Your task to perform on an android device: Is it going to rain this weekend? Image 0: 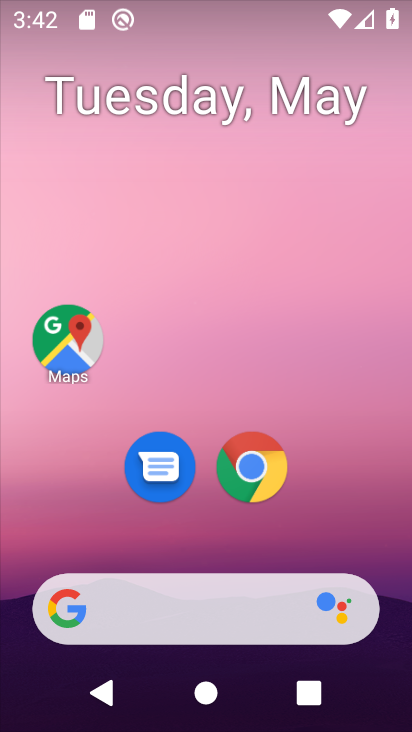
Step 0: drag from (284, 557) to (284, 151)
Your task to perform on an android device: Is it going to rain this weekend? Image 1: 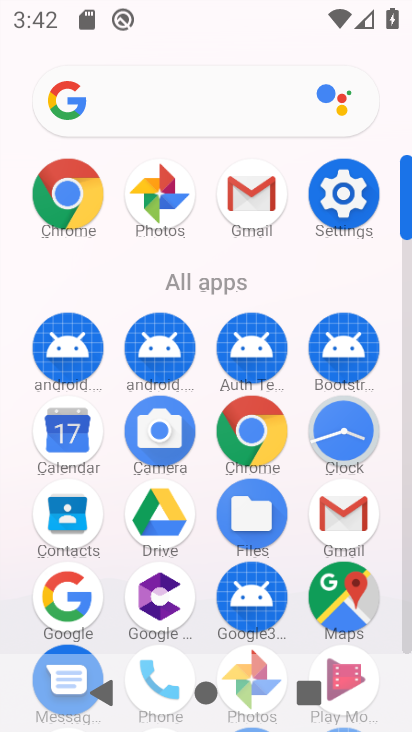
Step 1: click (58, 618)
Your task to perform on an android device: Is it going to rain this weekend? Image 2: 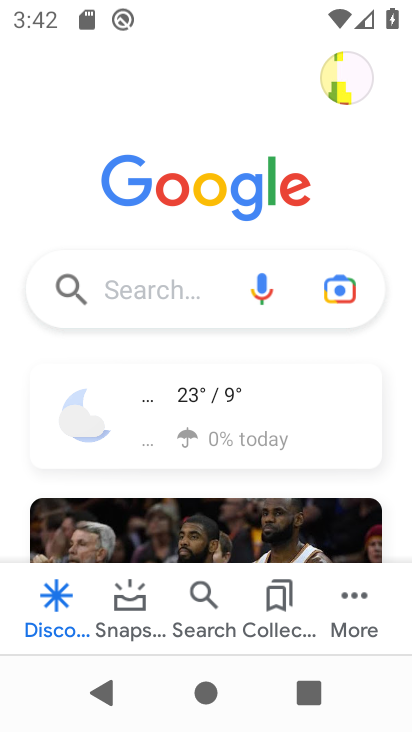
Step 2: click (168, 283)
Your task to perform on an android device: Is it going to rain this weekend? Image 3: 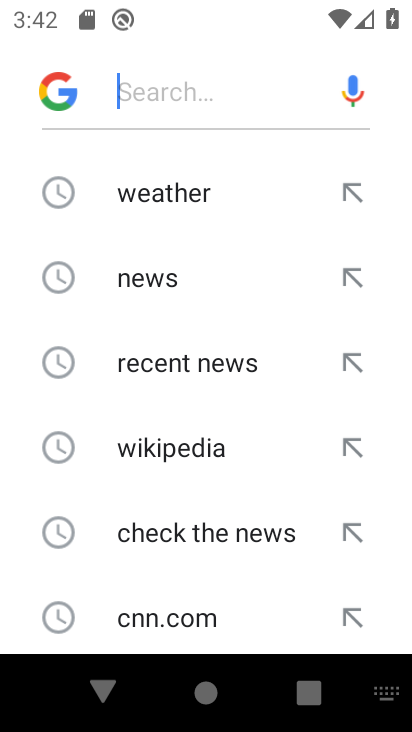
Step 3: click (186, 186)
Your task to perform on an android device: Is it going to rain this weekend? Image 4: 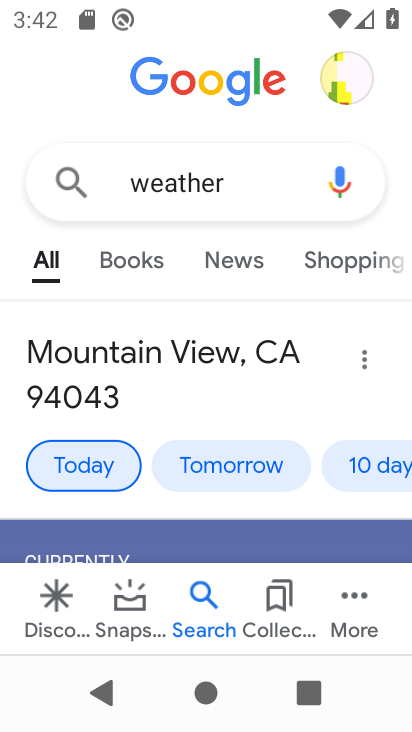
Step 4: click (372, 450)
Your task to perform on an android device: Is it going to rain this weekend? Image 5: 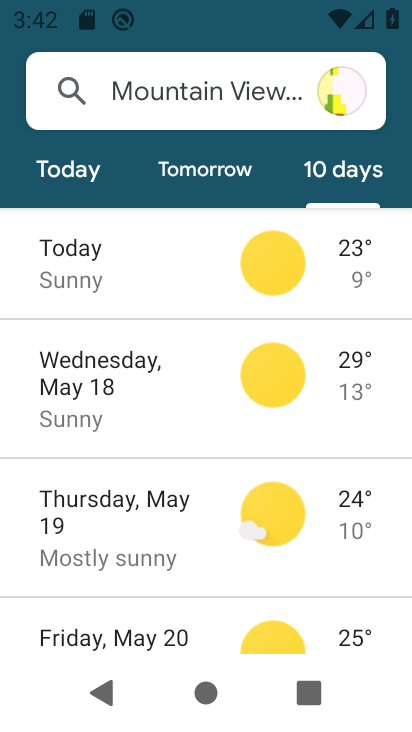
Step 5: task complete